Your task to perform on an android device: change the clock display to digital Image 0: 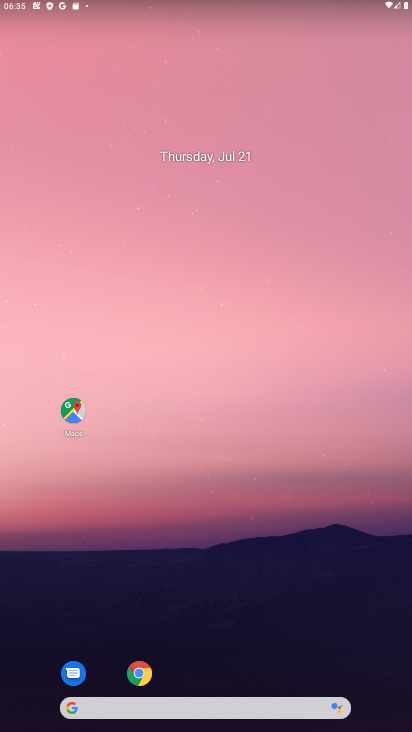
Step 0: drag from (222, 75) to (190, 197)
Your task to perform on an android device: change the clock display to digital Image 1: 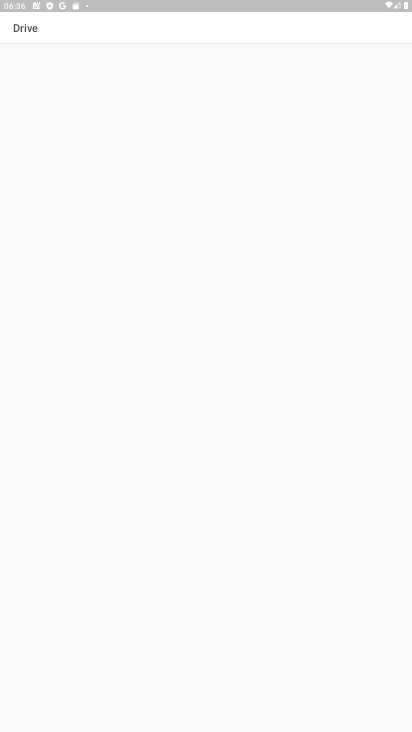
Step 1: drag from (220, 436) to (276, 30)
Your task to perform on an android device: change the clock display to digital Image 2: 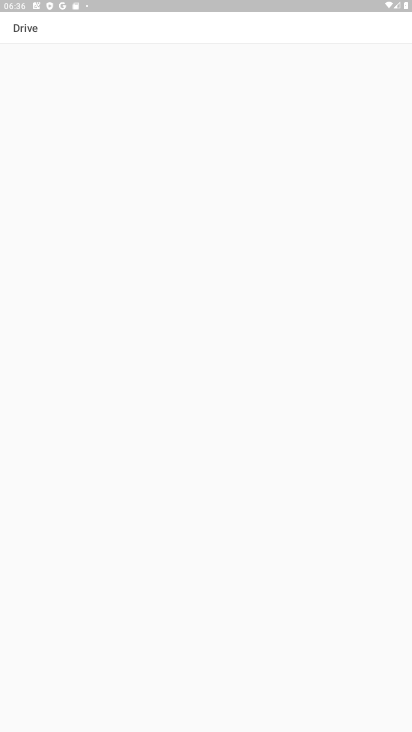
Step 2: press home button
Your task to perform on an android device: change the clock display to digital Image 3: 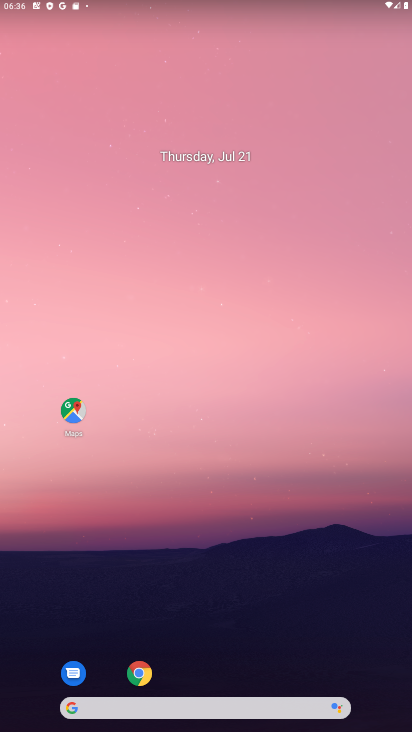
Step 3: drag from (164, 512) to (200, 98)
Your task to perform on an android device: change the clock display to digital Image 4: 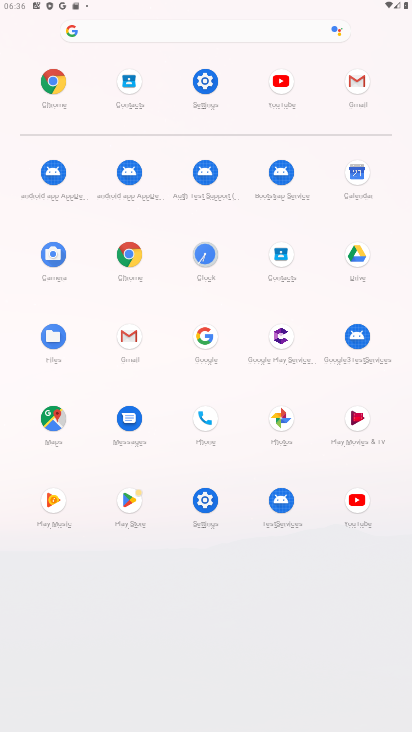
Step 4: click (204, 267)
Your task to perform on an android device: change the clock display to digital Image 5: 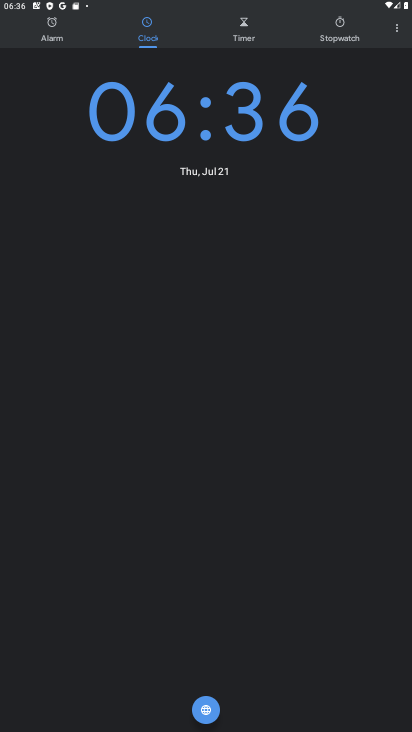
Step 5: click (396, 26)
Your task to perform on an android device: change the clock display to digital Image 6: 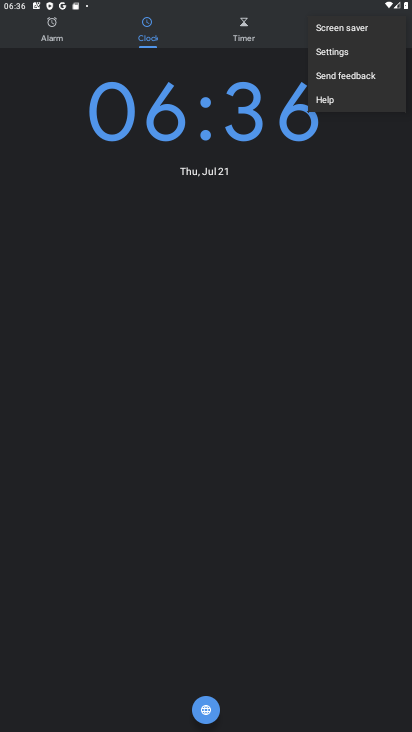
Step 6: click (343, 56)
Your task to perform on an android device: change the clock display to digital Image 7: 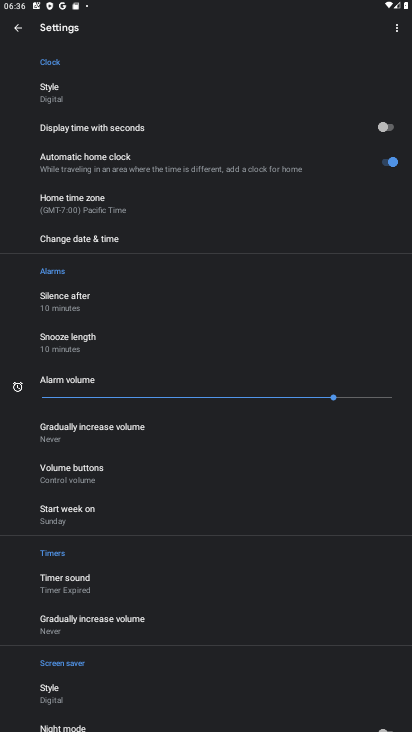
Step 7: click (66, 100)
Your task to perform on an android device: change the clock display to digital Image 8: 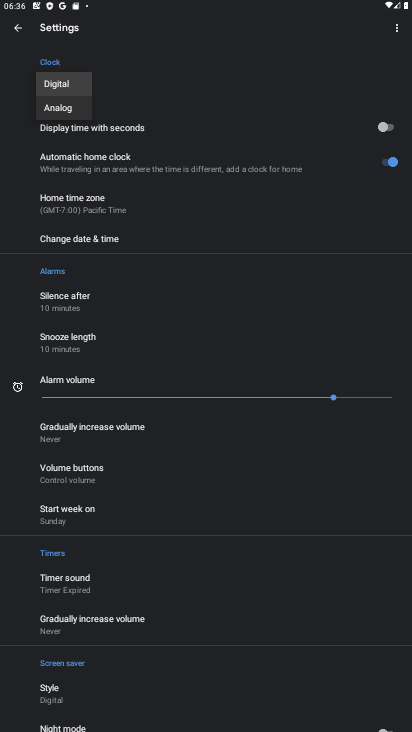
Step 8: task complete